Your task to perform on an android device: change text size in settings app Image 0: 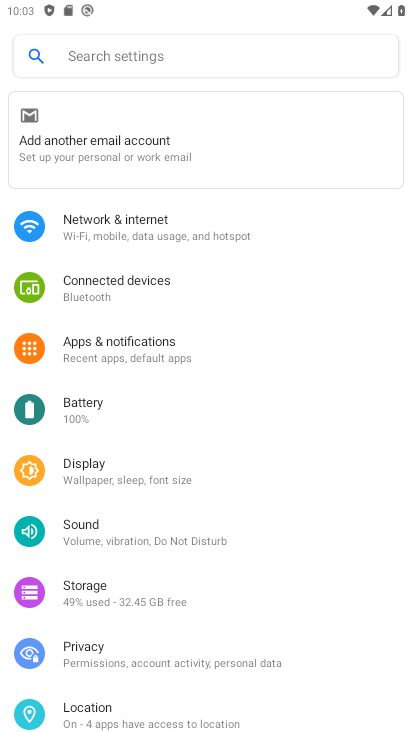
Step 0: click (110, 463)
Your task to perform on an android device: change text size in settings app Image 1: 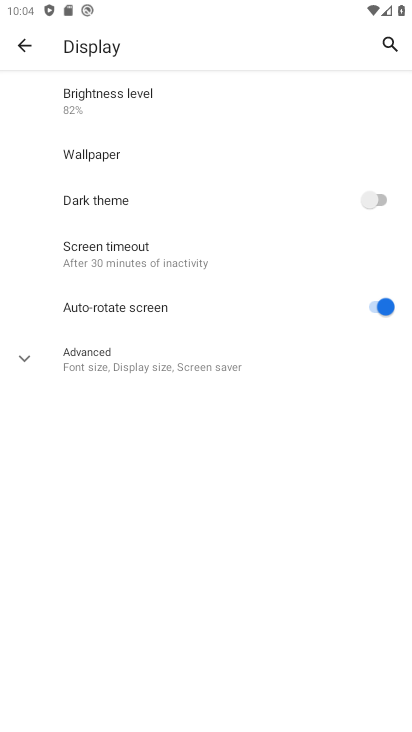
Step 1: click (25, 353)
Your task to perform on an android device: change text size in settings app Image 2: 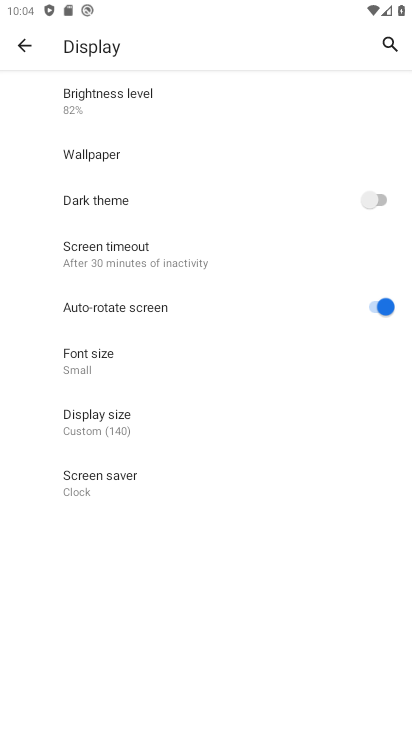
Step 2: click (111, 366)
Your task to perform on an android device: change text size in settings app Image 3: 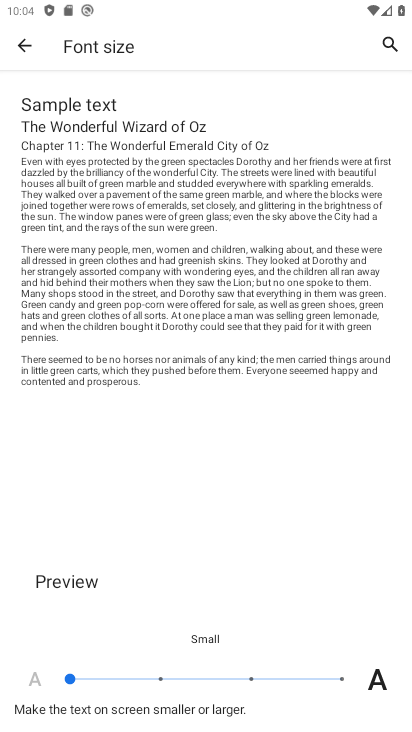
Step 3: click (154, 676)
Your task to perform on an android device: change text size in settings app Image 4: 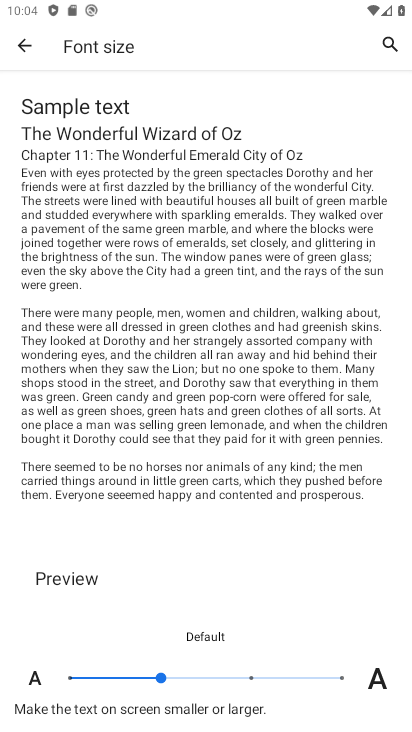
Step 4: task complete